Your task to perform on an android device: clear history in the chrome app Image 0: 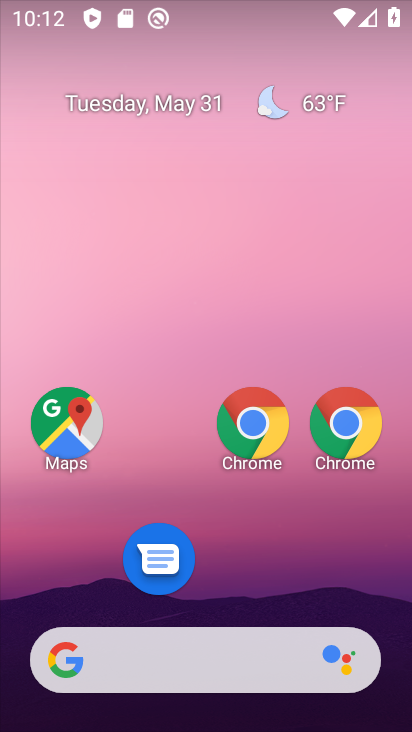
Step 0: drag from (192, 241) to (175, 188)
Your task to perform on an android device: clear history in the chrome app Image 1: 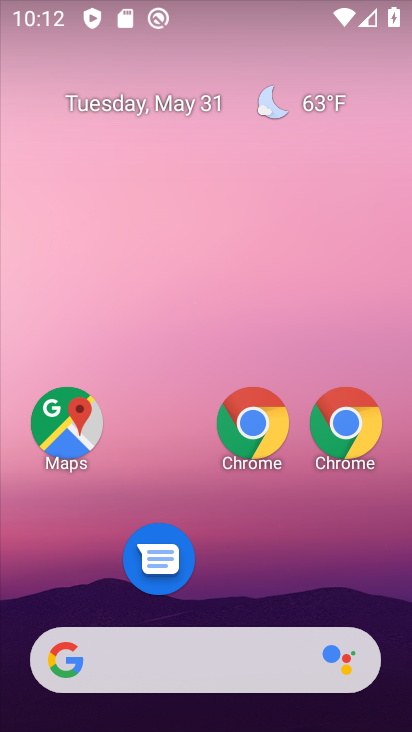
Step 1: drag from (258, 715) to (175, 110)
Your task to perform on an android device: clear history in the chrome app Image 2: 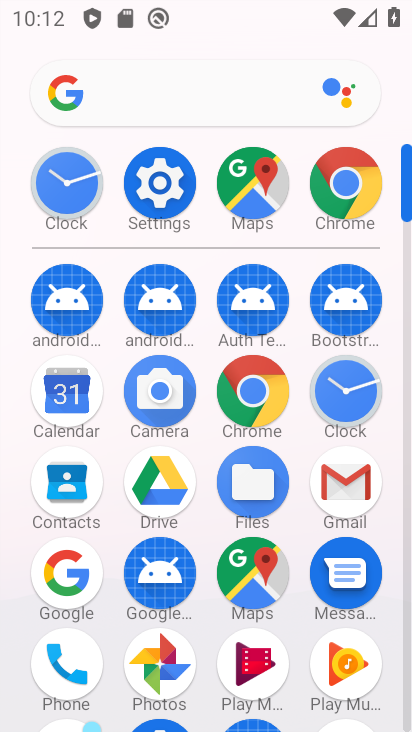
Step 2: click (346, 183)
Your task to perform on an android device: clear history in the chrome app Image 3: 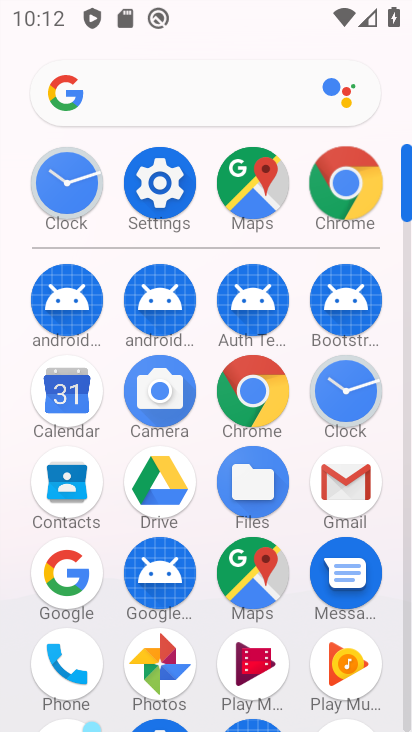
Step 3: click (346, 183)
Your task to perform on an android device: clear history in the chrome app Image 4: 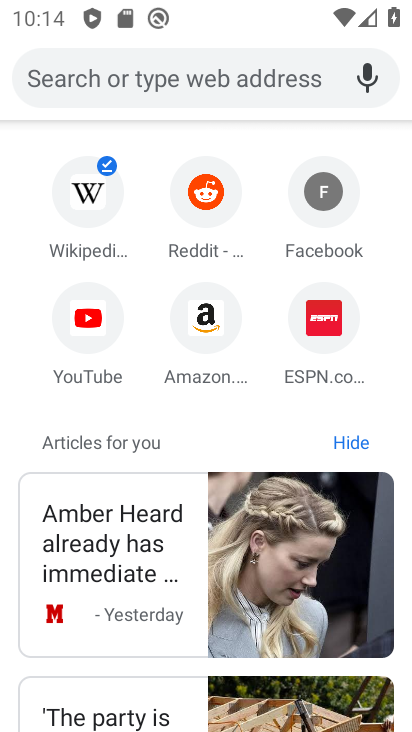
Step 4: press back button
Your task to perform on an android device: clear history in the chrome app Image 5: 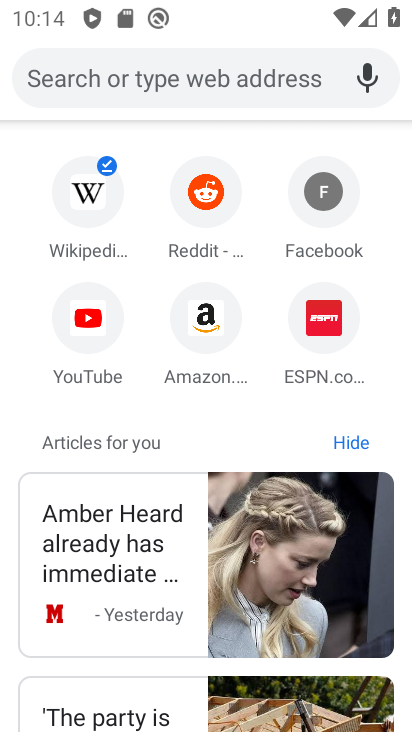
Step 5: press back button
Your task to perform on an android device: clear history in the chrome app Image 6: 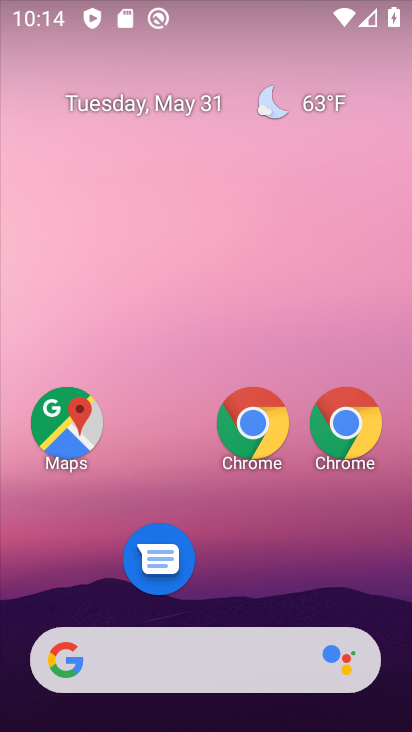
Step 6: drag from (283, 695) to (166, 66)
Your task to perform on an android device: clear history in the chrome app Image 7: 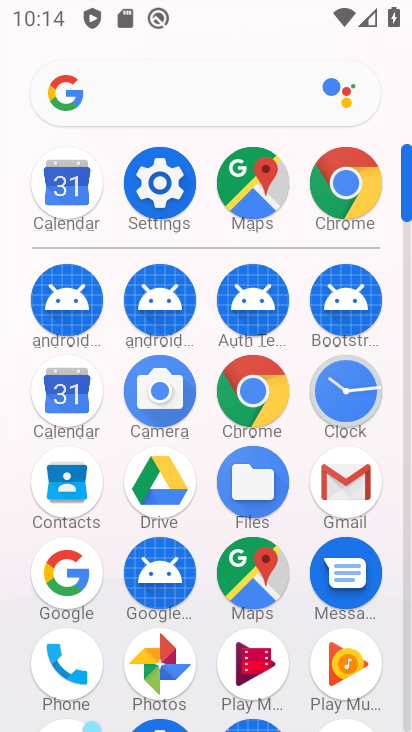
Step 7: drag from (229, 568) to (191, 143)
Your task to perform on an android device: clear history in the chrome app Image 8: 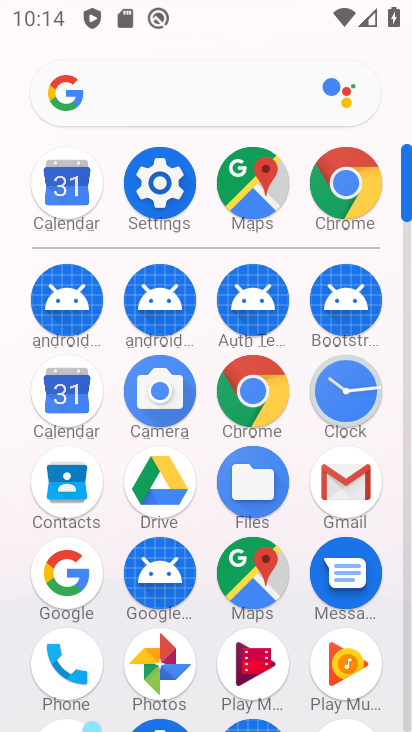
Step 8: click (252, 386)
Your task to perform on an android device: clear history in the chrome app Image 9: 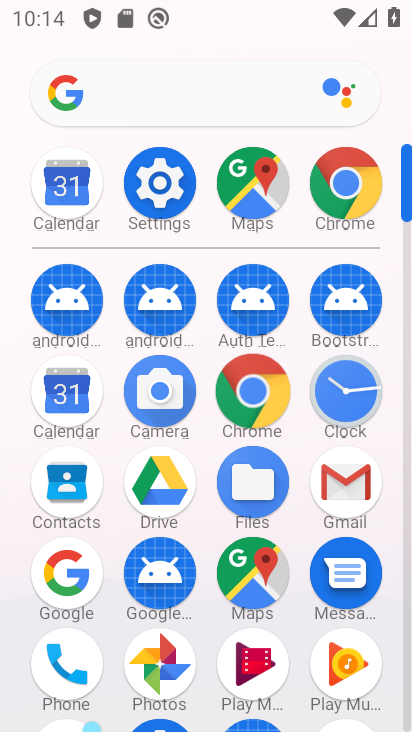
Step 9: click (252, 387)
Your task to perform on an android device: clear history in the chrome app Image 10: 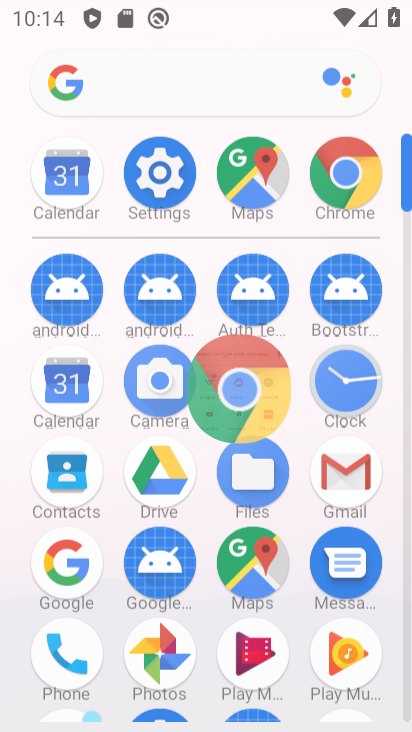
Step 10: click (252, 387)
Your task to perform on an android device: clear history in the chrome app Image 11: 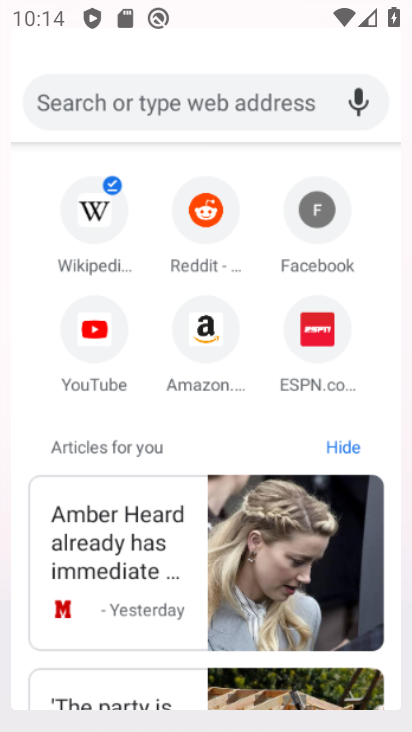
Step 11: click (251, 386)
Your task to perform on an android device: clear history in the chrome app Image 12: 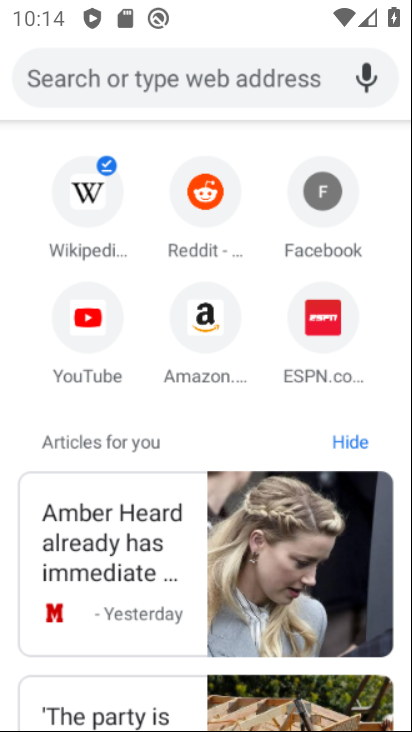
Step 12: click (252, 385)
Your task to perform on an android device: clear history in the chrome app Image 13: 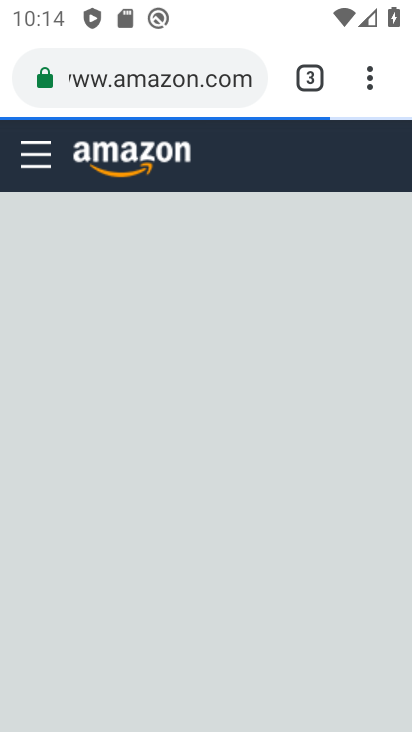
Step 13: press back button
Your task to perform on an android device: clear history in the chrome app Image 14: 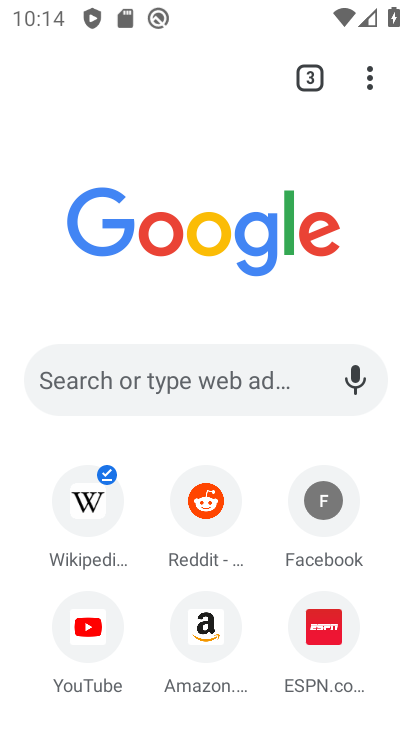
Step 14: click (364, 82)
Your task to perform on an android device: clear history in the chrome app Image 15: 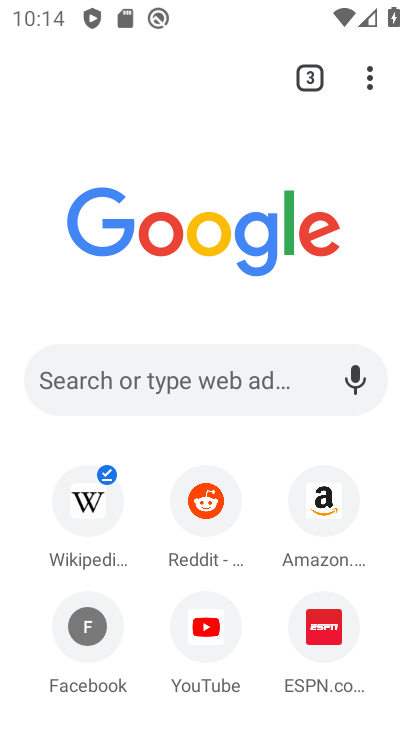
Step 15: drag from (369, 80) to (77, 397)
Your task to perform on an android device: clear history in the chrome app Image 16: 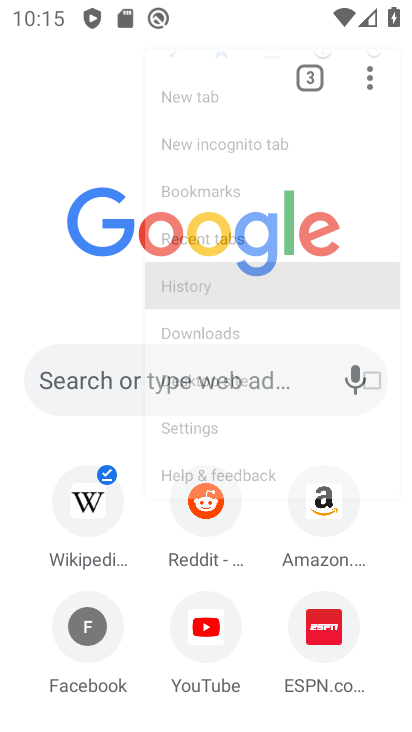
Step 16: click (78, 396)
Your task to perform on an android device: clear history in the chrome app Image 17: 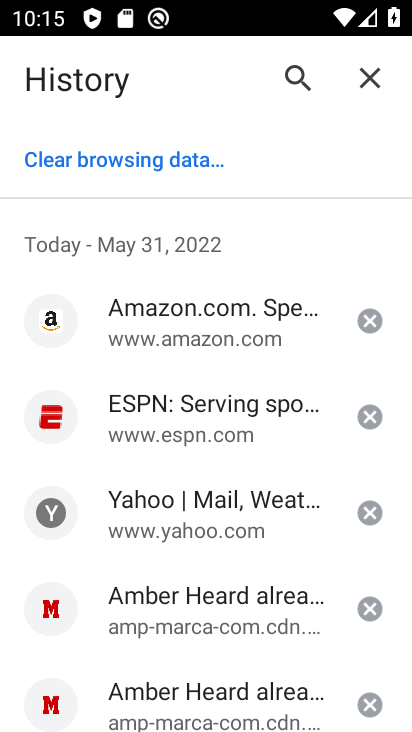
Step 17: click (128, 163)
Your task to perform on an android device: clear history in the chrome app Image 18: 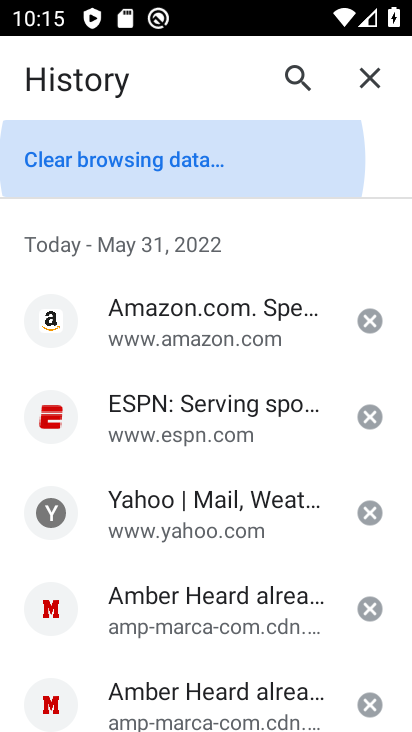
Step 18: click (128, 163)
Your task to perform on an android device: clear history in the chrome app Image 19: 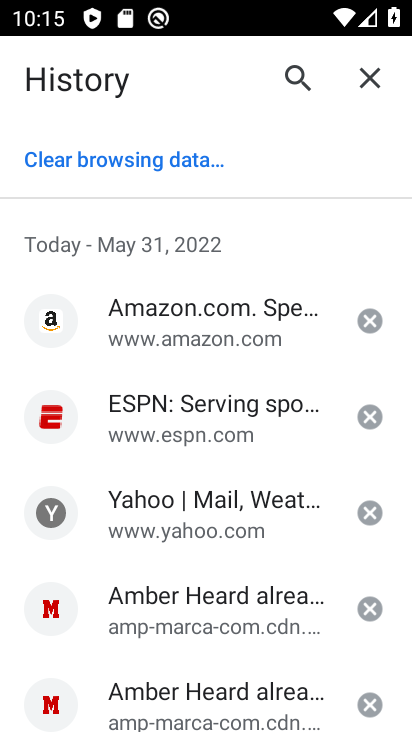
Step 19: click (129, 163)
Your task to perform on an android device: clear history in the chrome app Image 20: 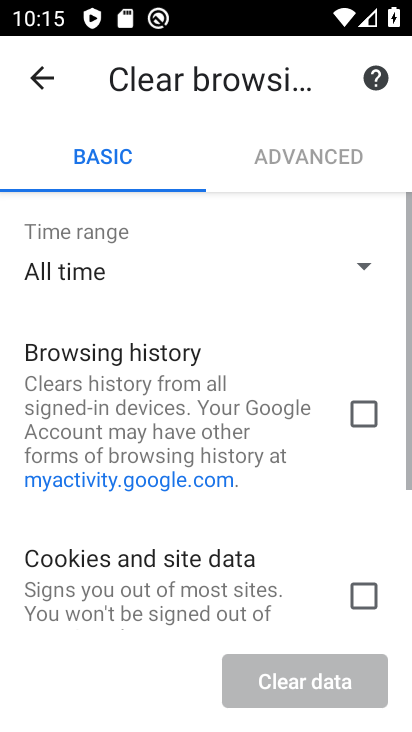
Step 20: task complete